Your task to perform on an android device: What's the weather going to be this weekend? Image 0: 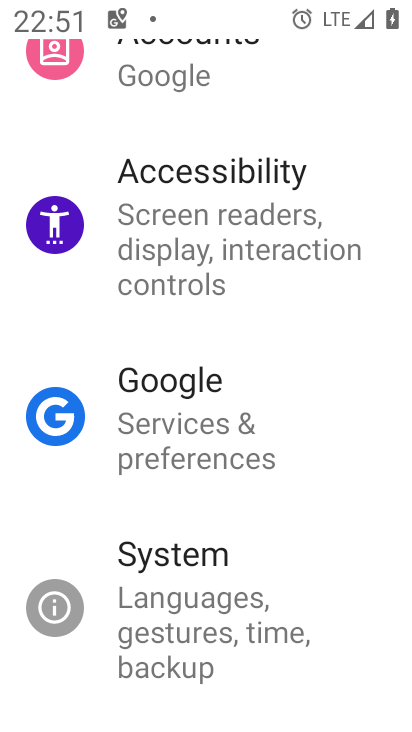
Step 0: press home button
Your task to perform on an android device: What's the weather going to be this weekend? Image 1: 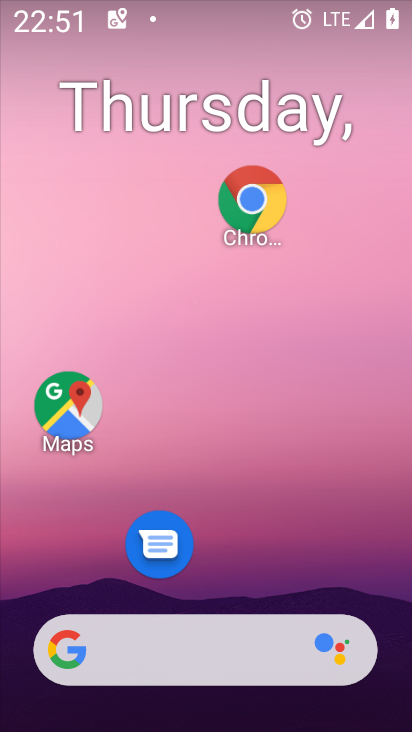
Step 1: click (216, 651)
Your task to perform on an android device: What's the weather going to be this weekend? Image 2: 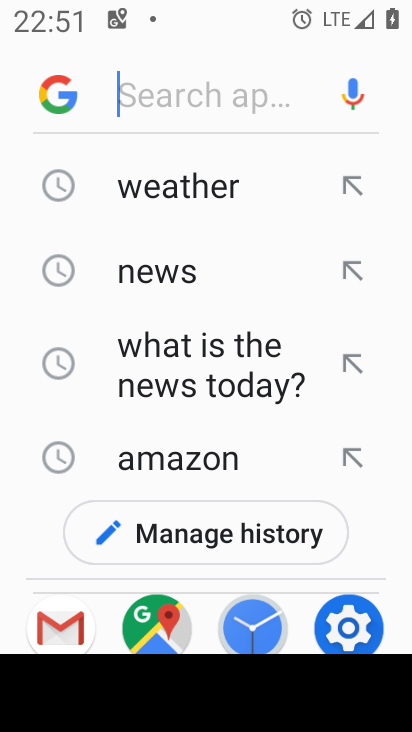
Step 2: click (214, 202)
Your task to perform on an android device: What's the weather going to be this weekend? Image 3: 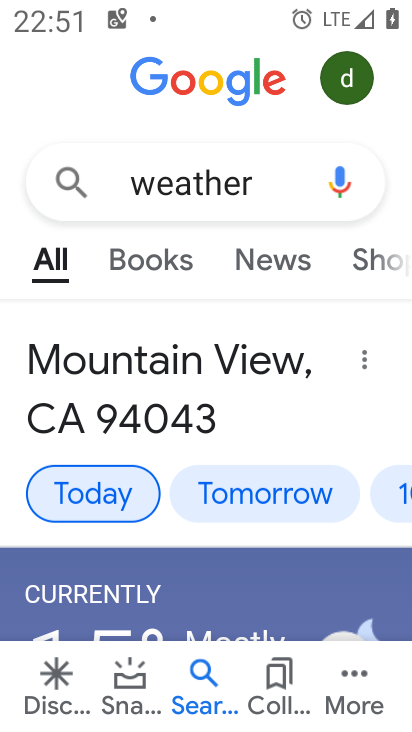
Step 3: click (383, 511)
Your task to perform on an android device: What's the weather going to be this weekend? Image 4: 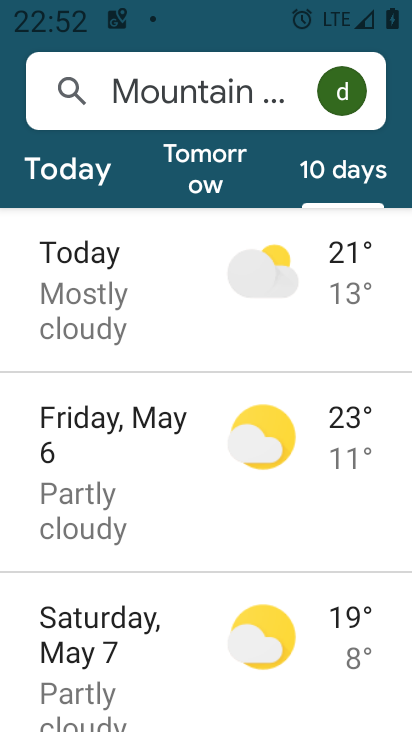
Step 4: task complete